Your task to perform on an android device: Do I have any events tomorrow? Image 0: 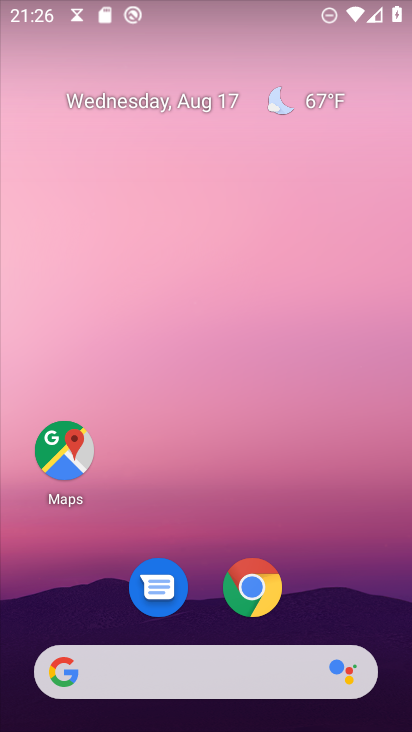
Step 0: drag from (7, 682) to (250, 122)
Your task to perform on an android device: Do I have any events tomorrow? Image 1: 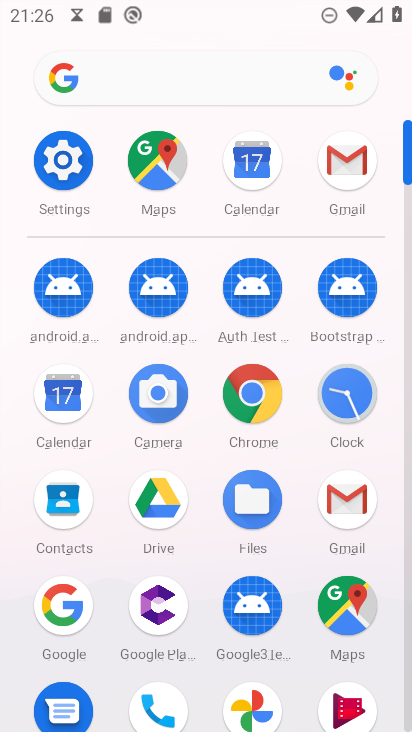
Step 1: click (258, 171)
Your task to perform on an android device: Do I have any events tomorrow? Image 2: 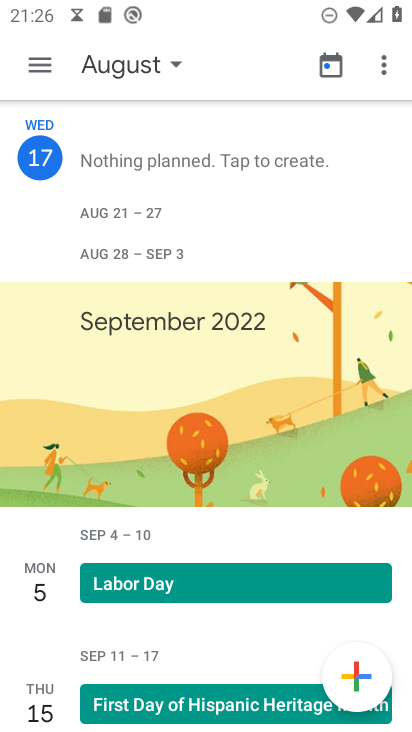
Step 2: click (174, 67)
Your task to perform on an android device: Do I have any events tomorrow? Image 3: 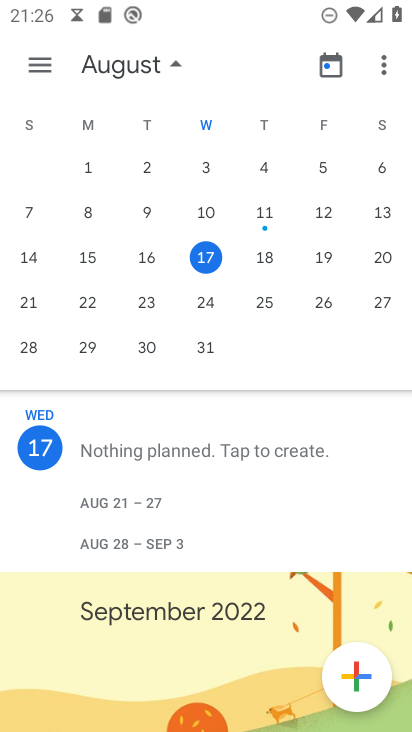
Step 3: task complete